Your task to perform on an android device: What's the weather going to be this weekend? Image 0: 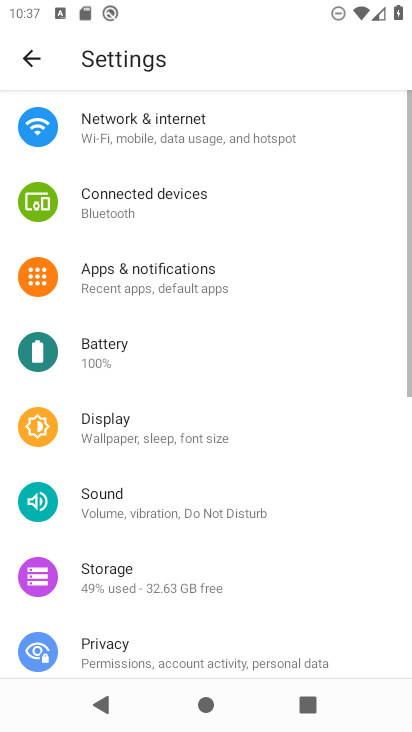
Step 0: press home button
Your task to perform on an android device: What's the weather going to be this weekend? Image 1: 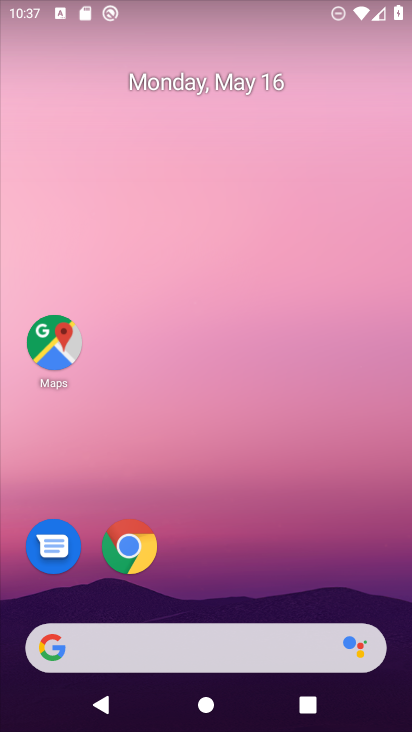
Step 1: click (246, 654)
Your task to perform on an android device: What's the weather going to be this weekend? Image 2: 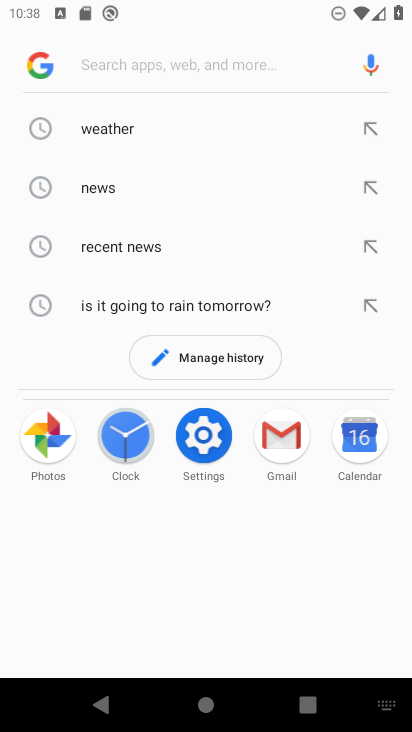
Step 2: click (139, 128)
Your task to perform on an android device: What's the weather going to be this weekend? Image 3: 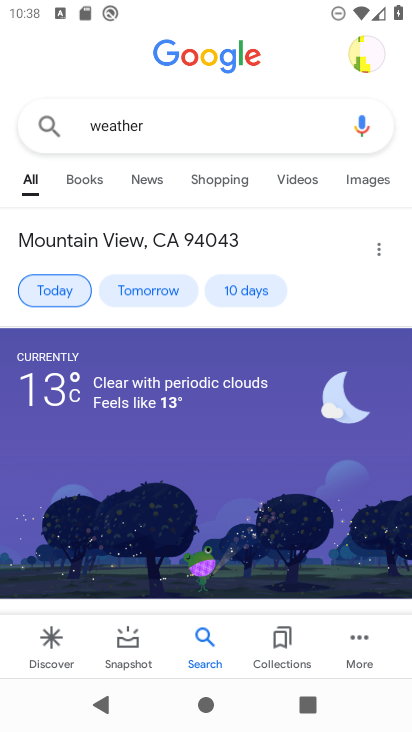
Step 3: click (247, 299)
Your task to perform on an android device: What's the weather going to be this weekend? Image 4: 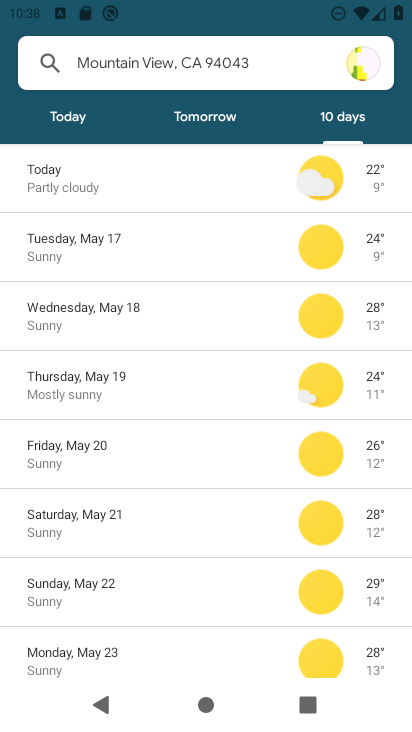
Step 4: task complete